Your task to perform on an android device: Open notification settings Image 0: 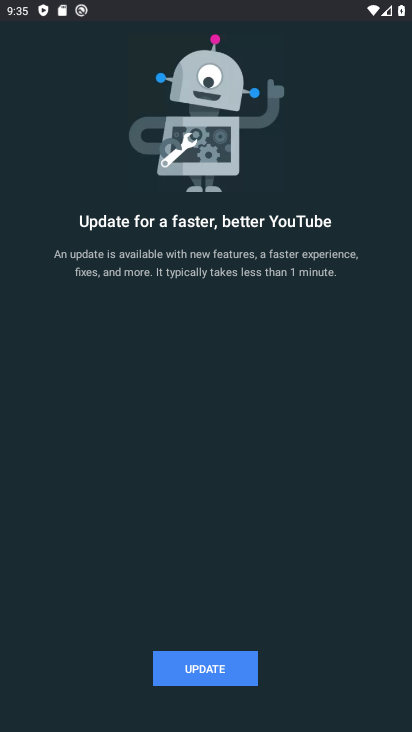
Step 0: press home button
Your task to perform on an android device: Open notification settings Image 1: 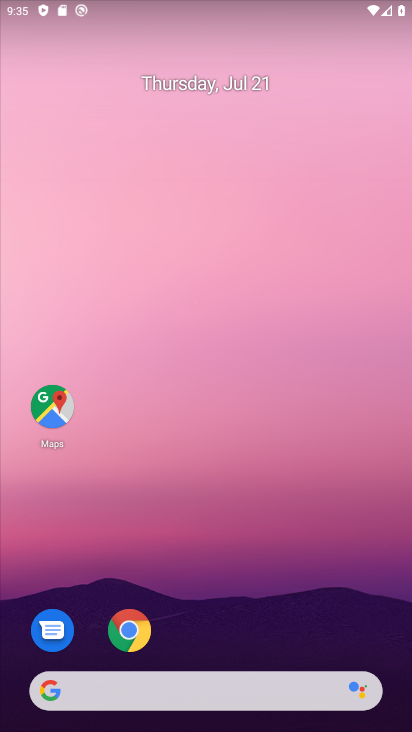
Step 1: drag from (286, 587) to (322, 5)
Your task to perform on an android device: Open notification settings Image 2: 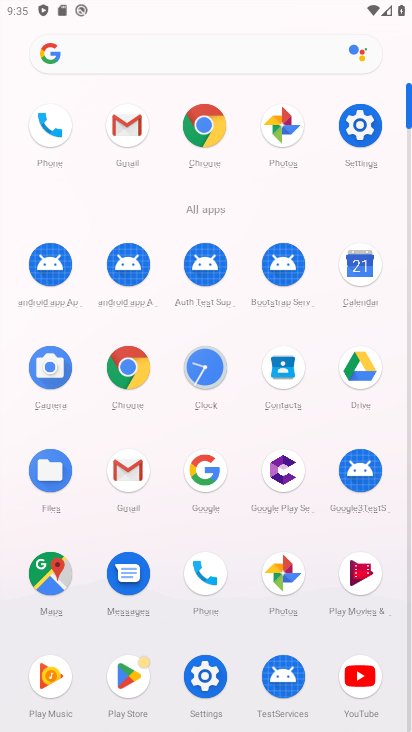
Step 2: click (362, 134)
Your task to perform on an android device: Open notification settings Image 3: 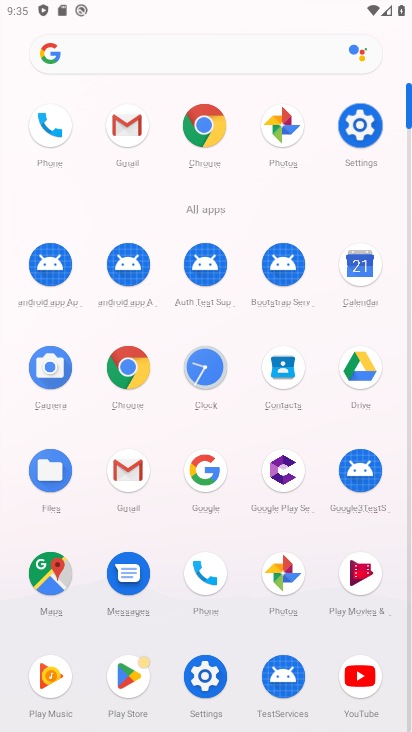
Step 3: click (362, 134)
Your task to perform on an android device: Open notification settings Image 4: 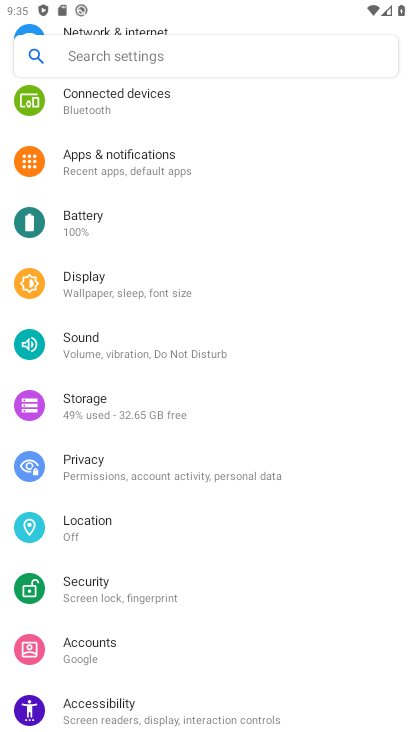
Step 4: click (128, 166)
Your task to perform on an android device: Open notification settings Image 5: 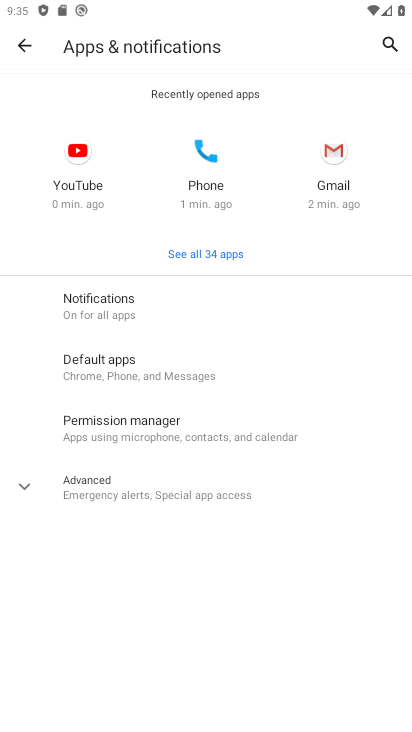
Step 5: click (104, 295)
Your task to perform on an android device: Open notification settings Image 6: 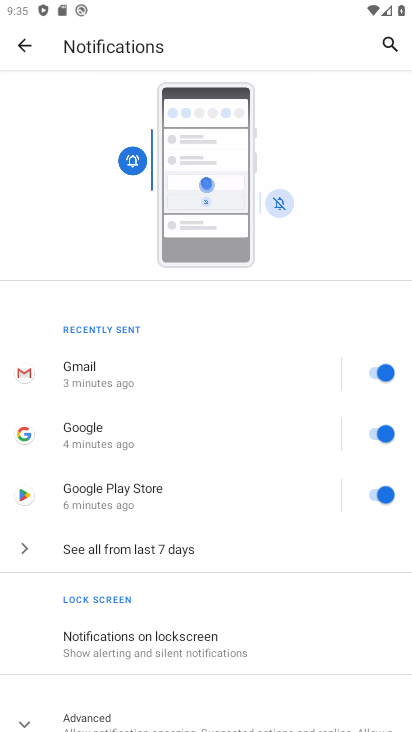
Step 6: task complete